Your task to perform on an android device: check out phone information Image 0: 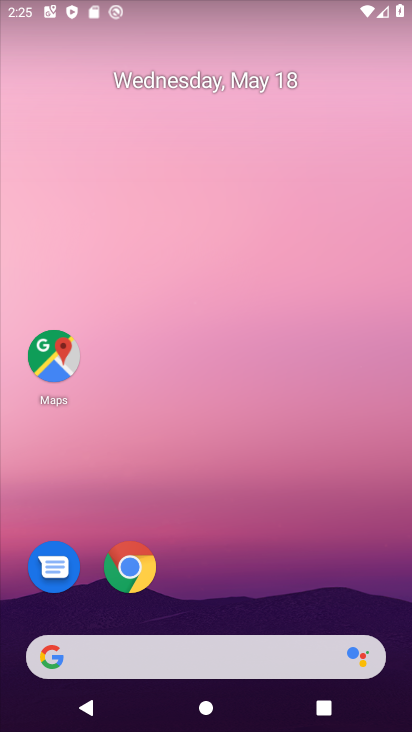
Step 0: drag from (264, 608) to (254, 112)
Your task to perform on an android device: check out phone information Image 1: 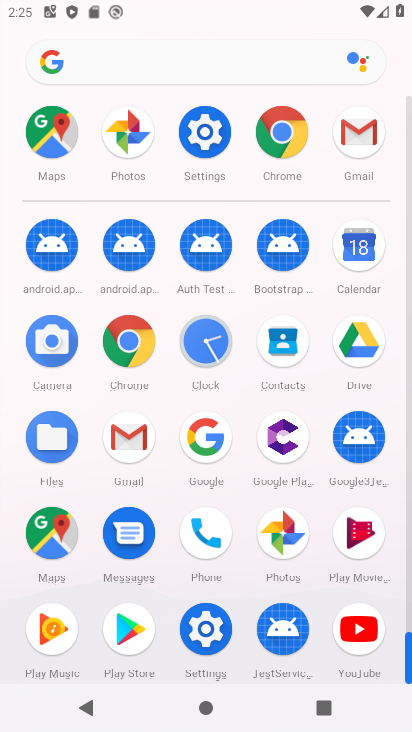
Step 1: click (188, 119)
Your task to perform on an android device: check out phone information Image 2: 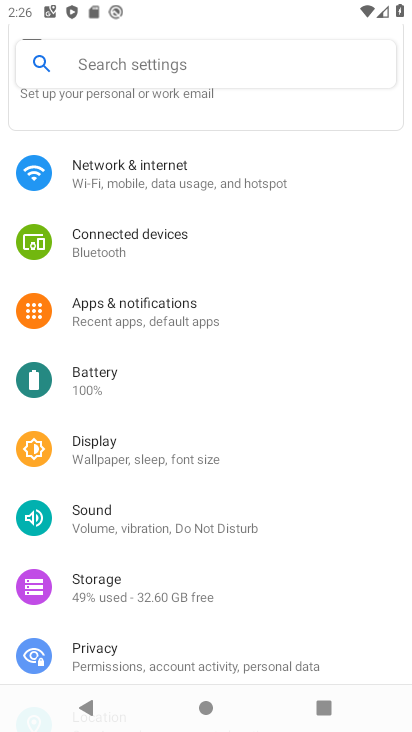
Step 2: drag from (203, 603) to (266, 110)
Your task to perform on an android device: check out phone information Image 3: 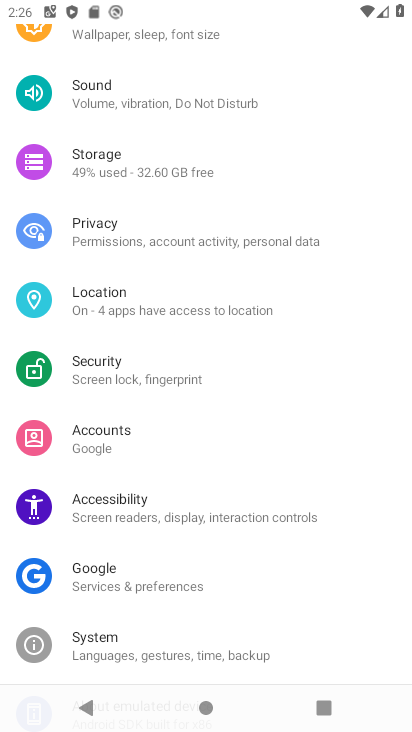
Step 3: drag from (160, 635) to (250, 144)
Your task to perform on an android device: check out phone information Image 4: 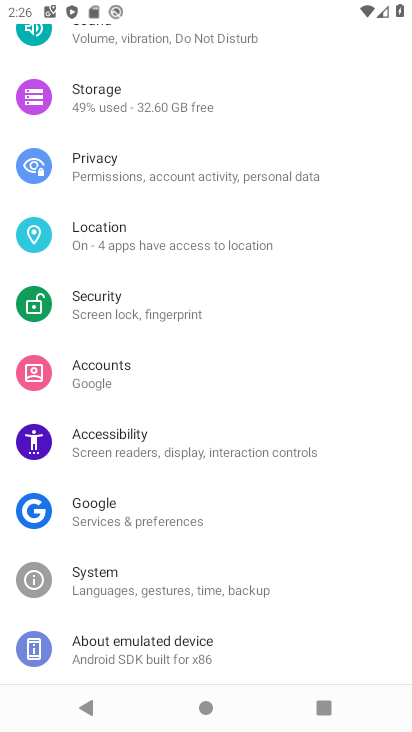
Step 4: click (109, 643)
Your task to perform on an android device: check out phone information Image 5: 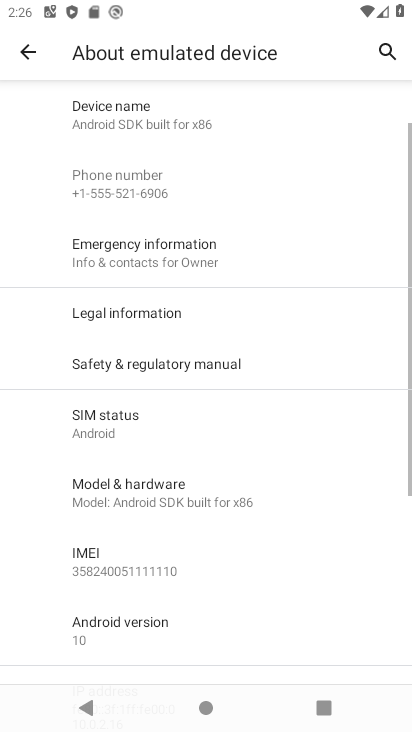
Step 5: task complete